Your task to perform on an android device: Open my contact list Image 0: 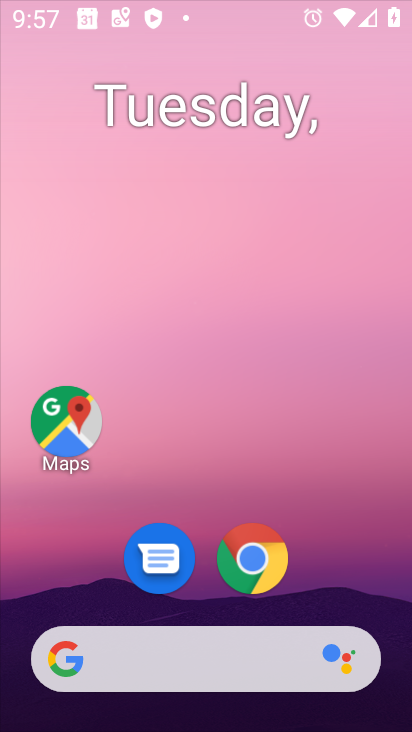
Step 0: drag from (371, 617) to (131, 127)
Your task to perform on an android device: Open my contact list Image 1: 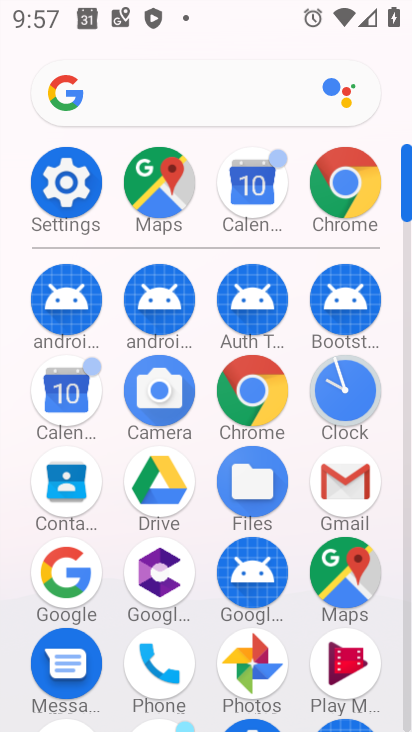
Step 1: click (68, 483)
Your task to perform on an android device: Open my contact list Image 2: 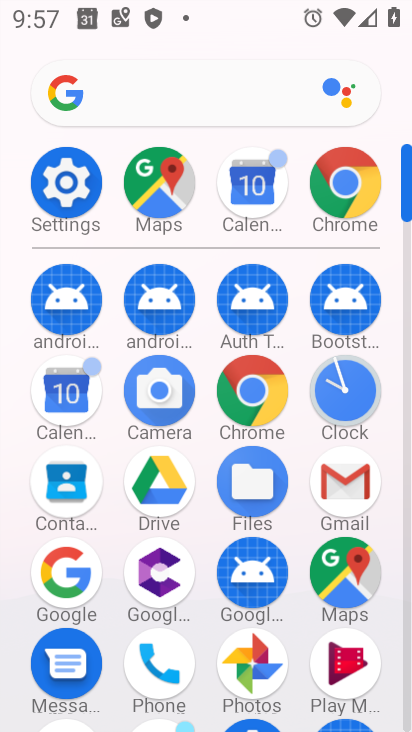
Step 2: click (68, 483)
Your task to perform on an android device: Open my contact list Image 3: 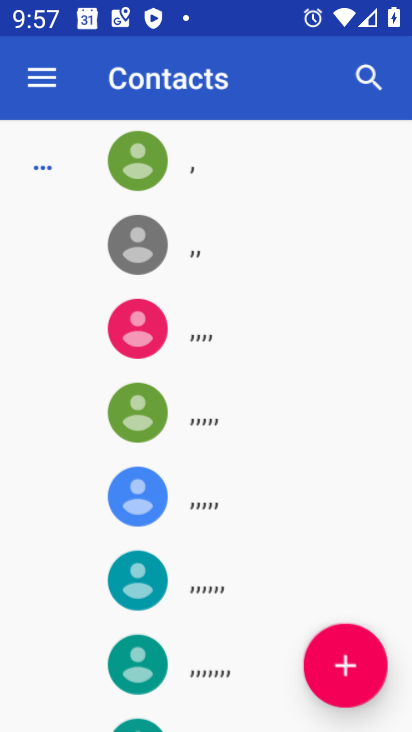
Step 3: click (68, 483)
Your task to perform on an android device: Open my contact list Image 4: 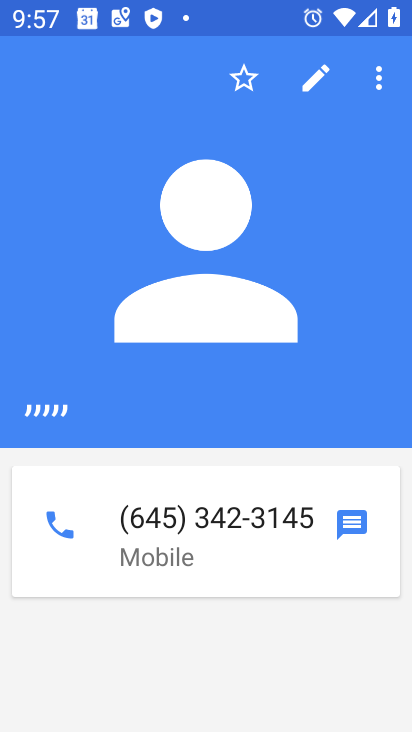
Step 4: task complete